Your task to perform on an android device: turn pop-ups on in chrome Image 0: 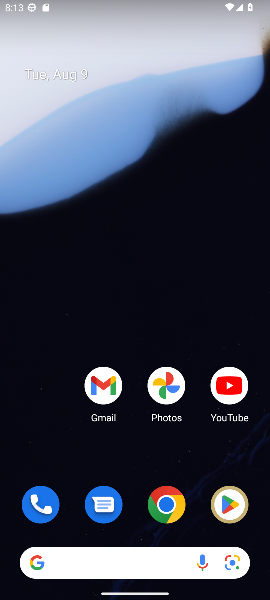
Step 0: click (163, 501)
Your task to perform on an android device: turn pop-ups on in chrome Image 1: 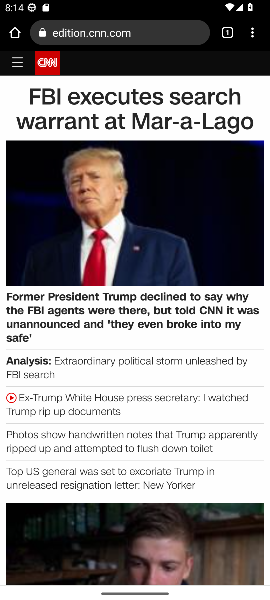
Step 1: click (246, 34)
Your task to perform on an android device: turn pop-ups on in chrome Image 2: 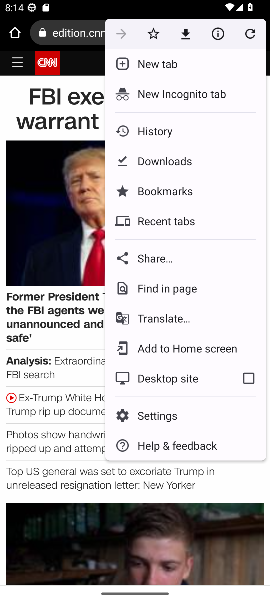
Step 2: click (158, 414)
Your task to perform on an android device: turn pop-ups on in chrome Image 3: 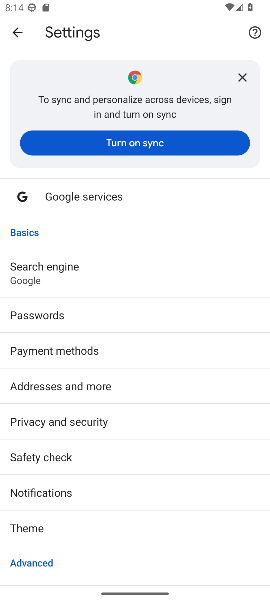
Step 3: drag from (173, 524) to (143, 217)
Your task to perform on an android device: turn pop-ups on in chrome Image 4: 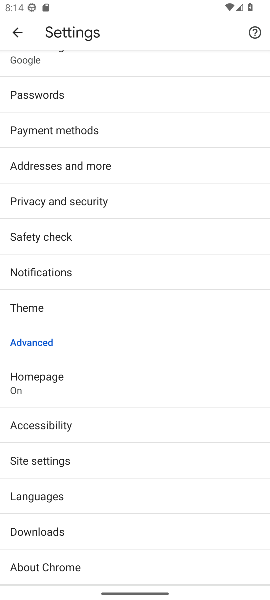
Step 4: click (46, 457)
Your task to perform on an android device: turn pop-ups on in chrome Image 5: 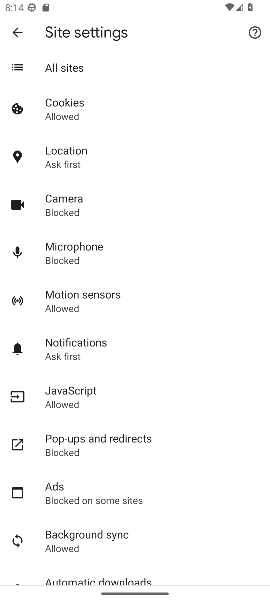
Step 5: click (84, 434)
Your task to perform on an android device: turn pop-ups on in chrome Image 6: 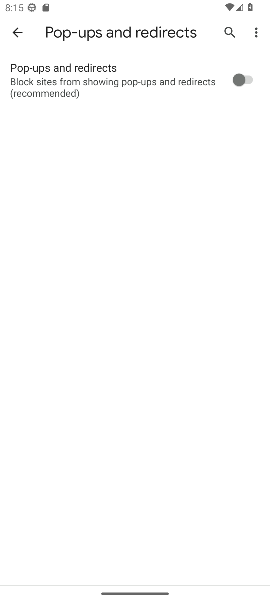
Step 6: click (229, 71)
Your task to perform on an android device: turn pop-ups on in chrome Image 7: 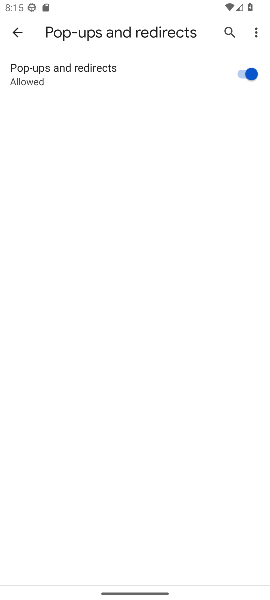
Step 7: task complete